Your task to perform on an android device: toggle airplane mode Image 0: 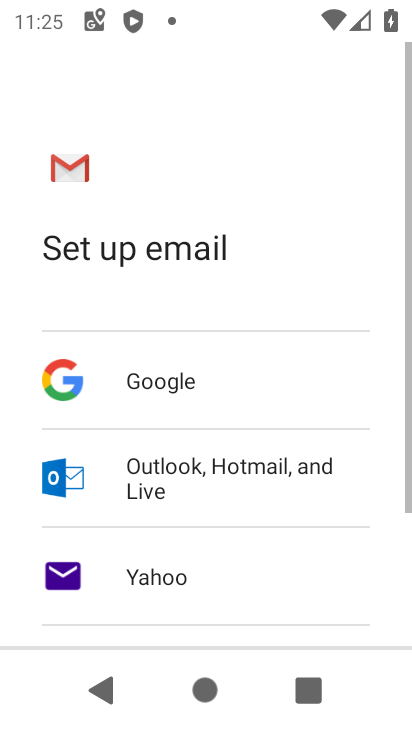
Step 0: press home button
Your task to perform on an android device: toggle airplane mode Image 1: 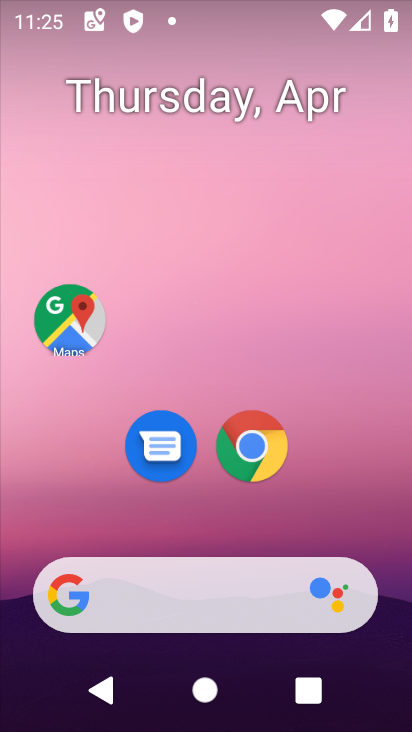
Step 1: drag from (387, 580) to (316, 188)
Your task to perform on an android device: toggle airplane mode Image 2: 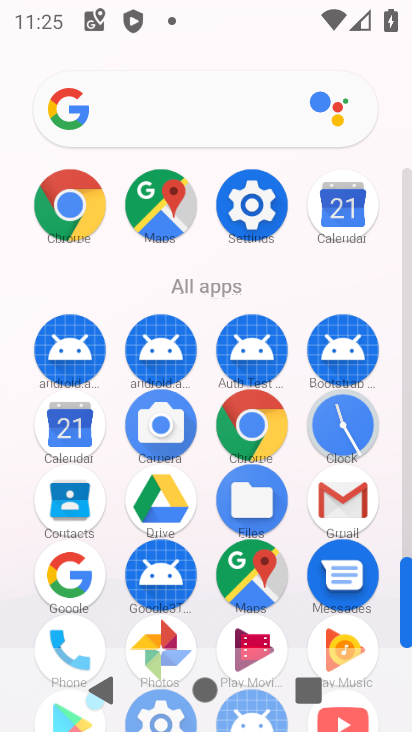
Step 2: click (262, 206)
Your task to perform on an android device: toggle airplane mode Image 3: 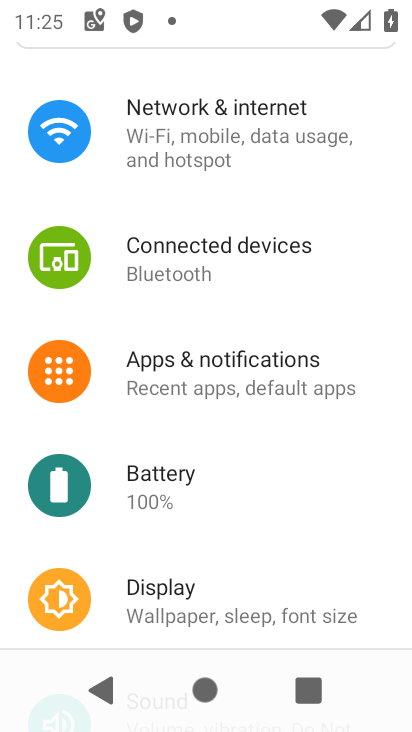
Step 3: drag from (287, 189) to (281, 376)
Your task to perform on an android device: toggle airplane mode Image 4: 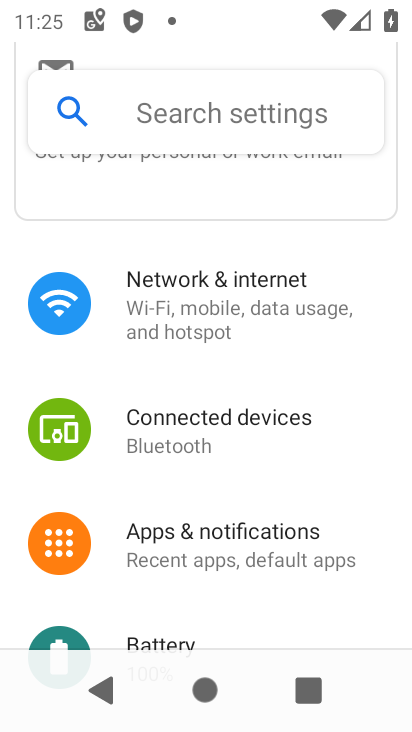
Step 4: click (291, 289)
Your task to perform on an android device: toggle airplane mode Image 5: 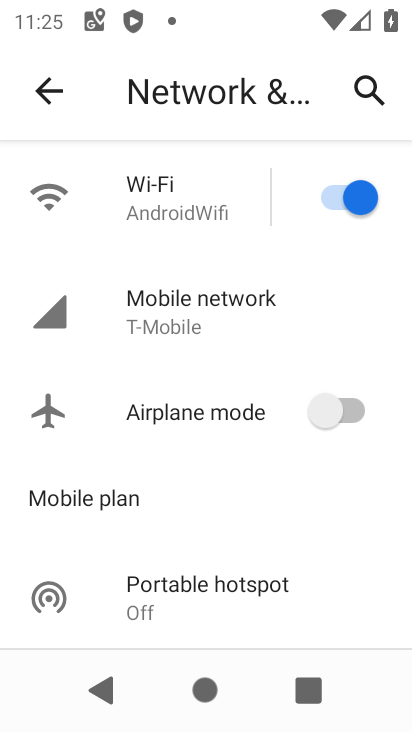
Step 5: click (336, 417)
Your task to perform on an android device: toggle airplane mode Image 6: 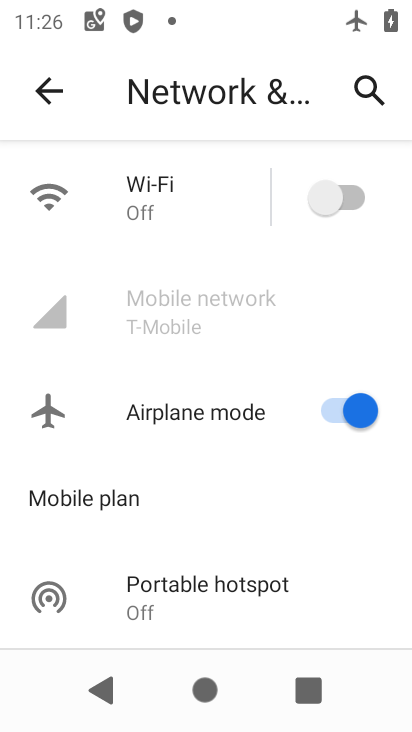
Step 6: task complete